Your task to perform on an android device: Check the weather Image 0: 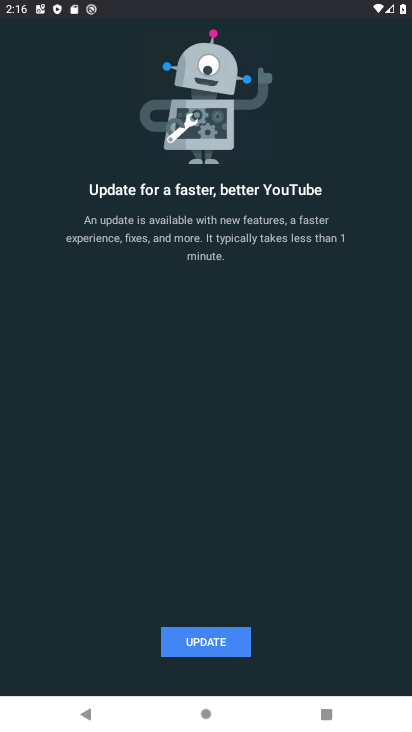
Step 0: press home button
Your task to perform on an android device: Check the weather Image 1: 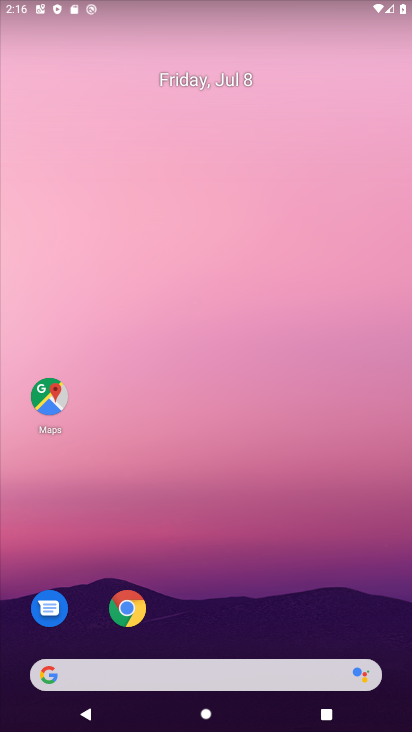
Step 1: drag from (225, 705) to (199, 7)
Your task to perform on an android device: Check the weather Image 2: 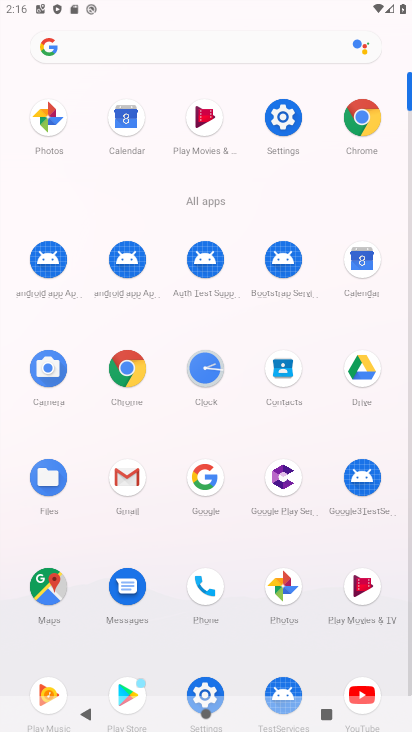
Step 2: click (211, 469)
Your task to perform on an android device: Check the weather Image 3: 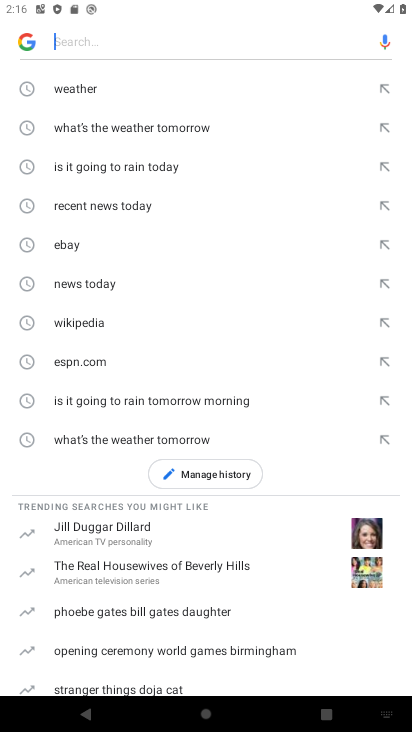
Step 3: click (103, 87)
Your task to perform on an android device: Check the weather Image 4: 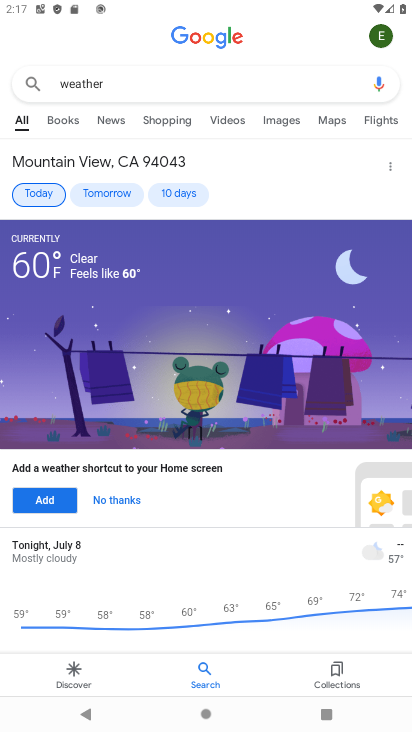
Step 4: task complete